Your task to perform on an android device: What is the news today? Image 0: 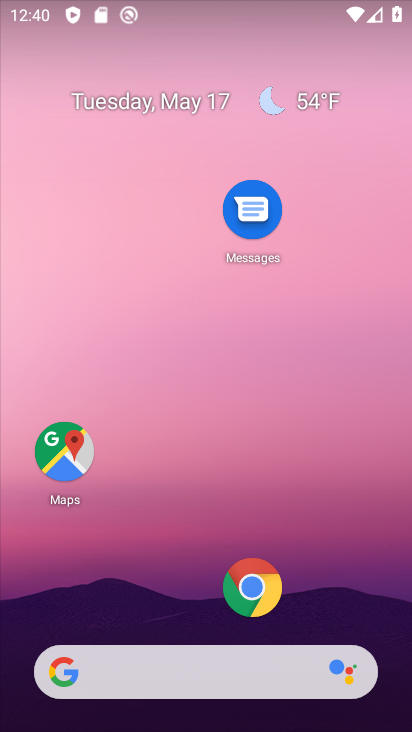
Step 0: click (240, 677)
Your task to perform on an android device: What is the news today? Image 1: 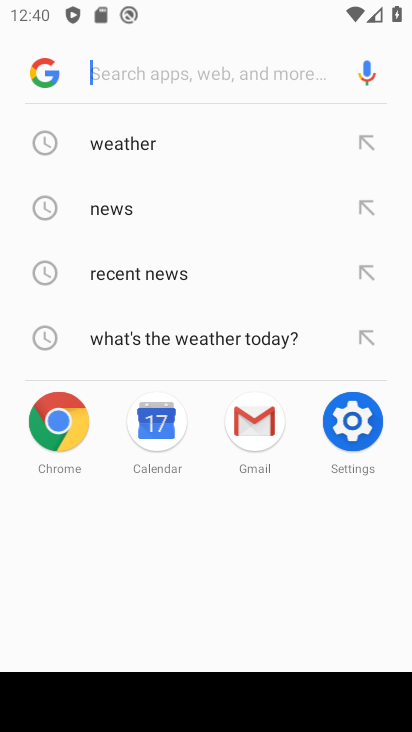
Step 1: type "news today ?"
Your task to perform on an android device: What is the news today? Image 2: 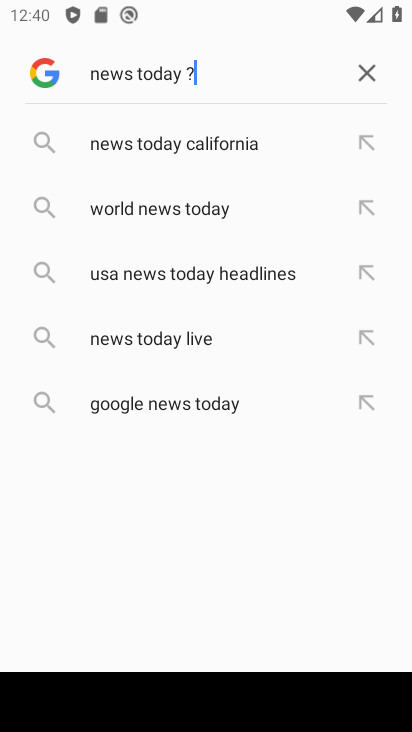
Step 2: click (164, 343)
Your task to perform on an android device: What is the news today? Image 3: 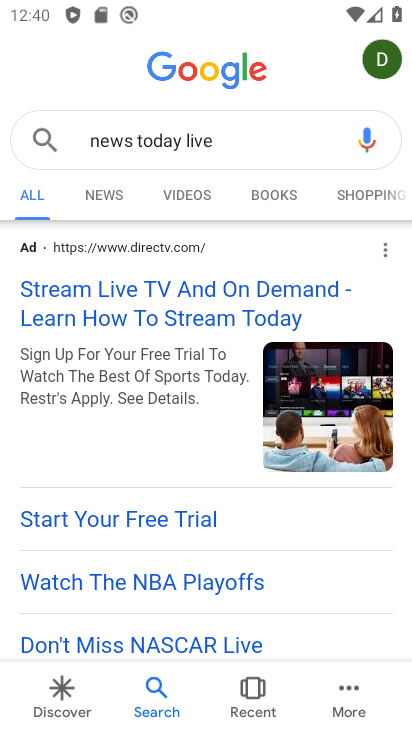
Step 3: task complete